Your task to perform on an android device: delete a single message in the gmail app Image 0: 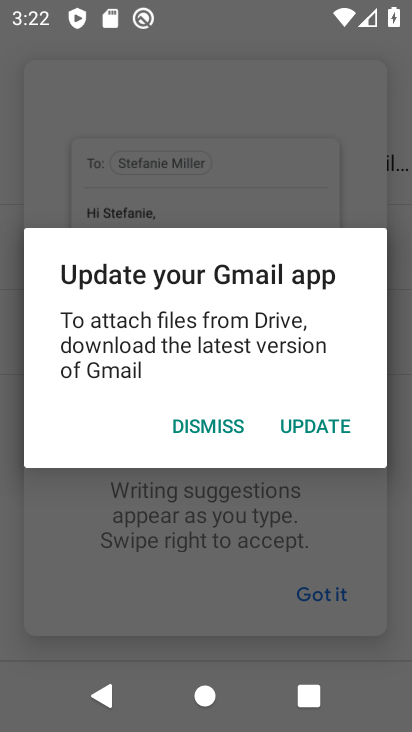
Step 0: press home button
Your task to perform on an android device: delete a single message in the gmail app Image 1: 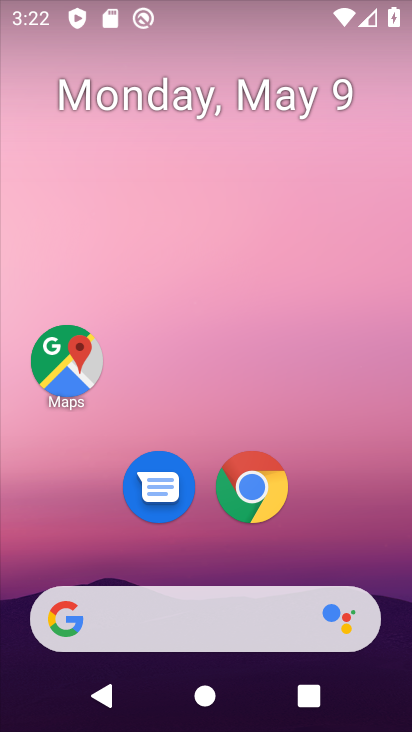
Step 1: drag from (194, 596) to (211, 134)
Your task to perform on an android device: delete a single message in the gmail app Image 2: 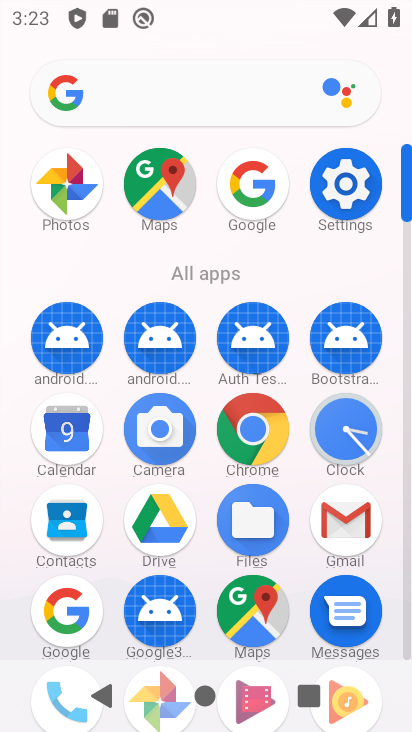
Step 2: click (343, 514)
Your task to perform on an android device: delete a single message in the gmail app Image 3: 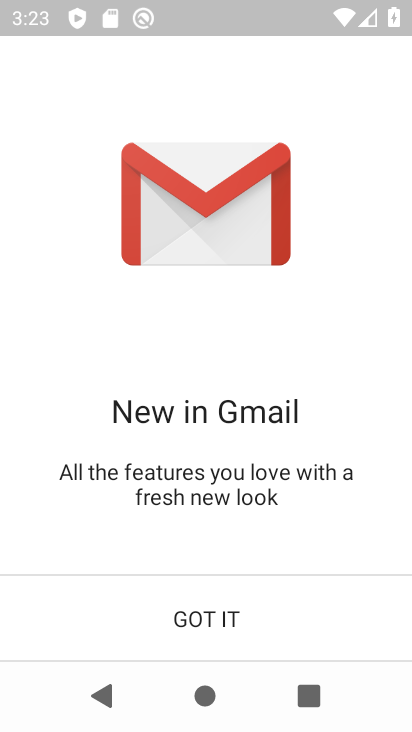
Step 3: click (243, 616)
Your task to perform on an android device: delete a single message in the gmail app Image 4: 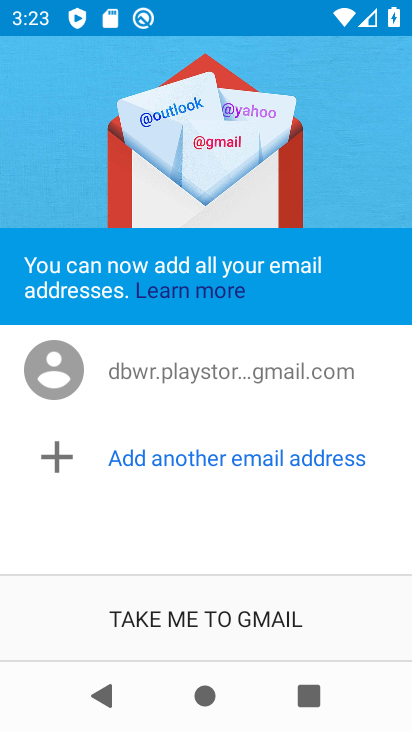
Step 4: click (236, 612)
Your task to perform on an android device: delete a single message in the gmail app Image 5: 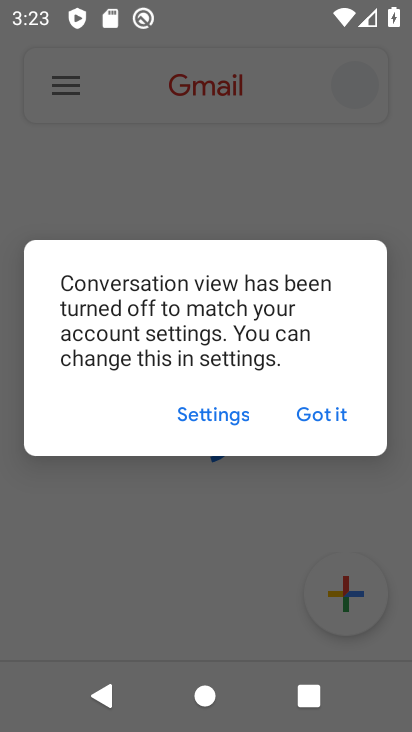
Step 5: click (322, 414)
Your task to perform on an android device: delete a single message in the gmail app Image 6: 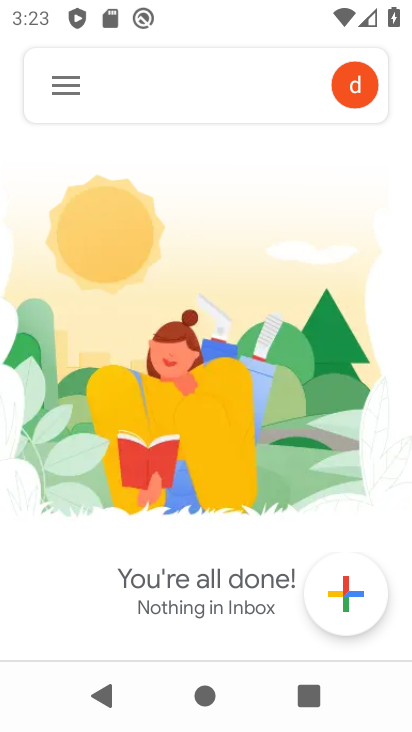
Step 6: click (56, 88)
Your task to perform on an android device: delete a single message in the gmail app Image 7: 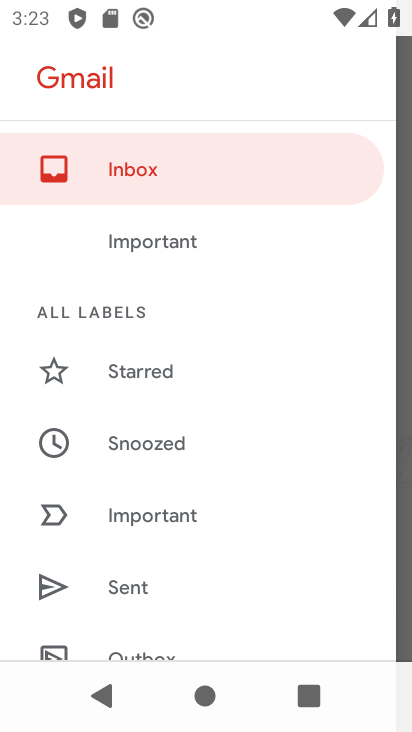
Step 7: drag from (161, 599) to (149, 257)
Your task to perform on an android device: delete a single message in the gmail app Image 8: 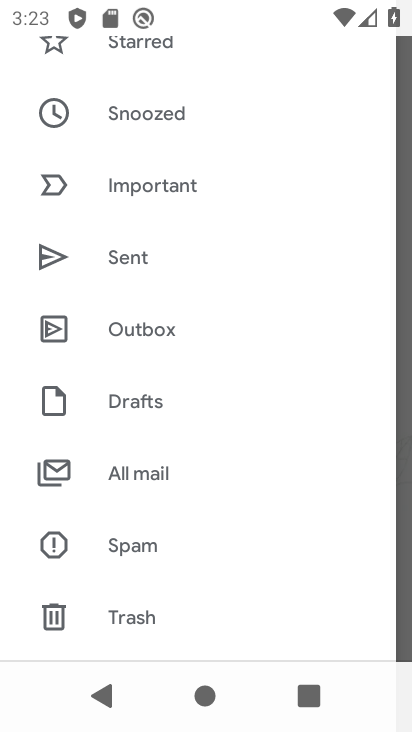
Step 8: drag from (213, 92) to (235, 560)
Your task to perform on an android device: delete a single message in the gmail app Image 9: 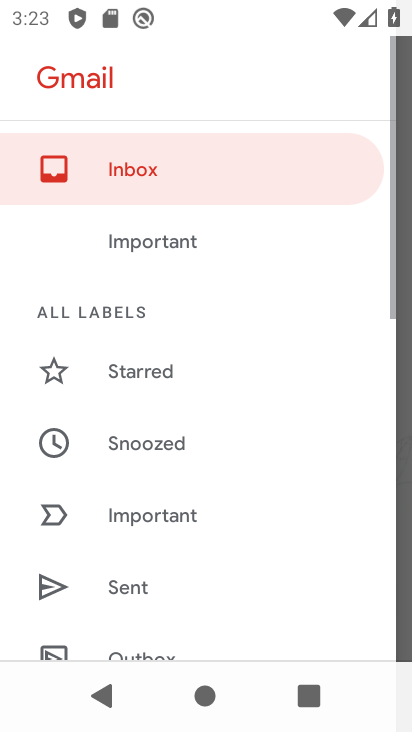
Step 9: click (160, 166)
Your task to perform on an android device: delete a single message in the gmail app Image 10: 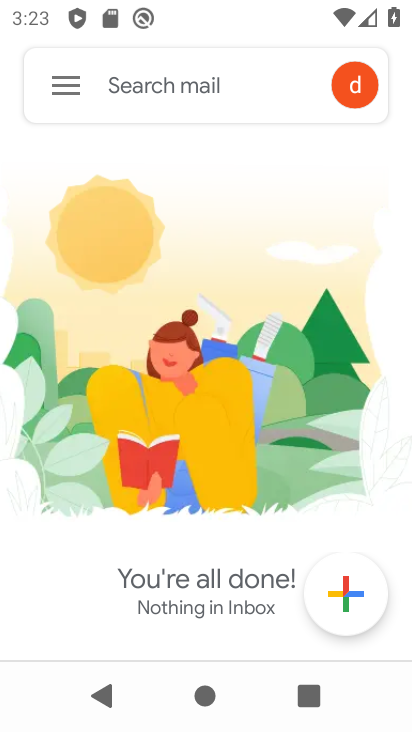
Step 10: task complete